Your task to perform on an android device: check google app version Image 0: 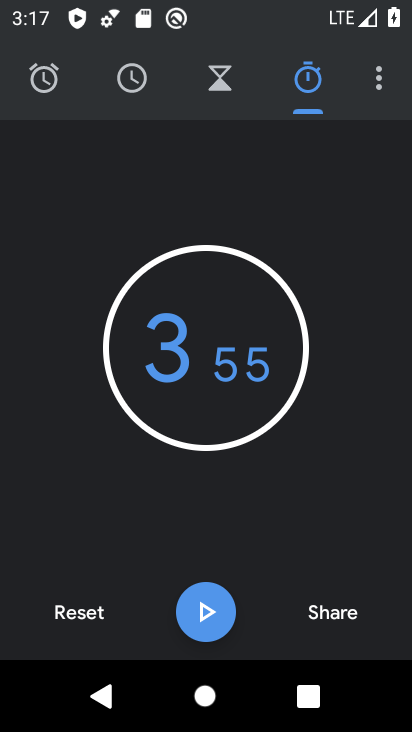
Step 0: press back button
Your task to perform on an android device: check google app version Image 1: 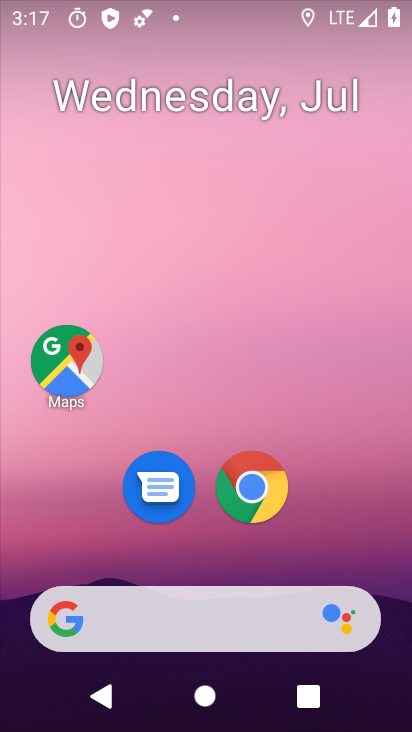
Step 1: drag from (191, 545) to (228, 4)
Your task to perform on an android device: check google app version Image 2: 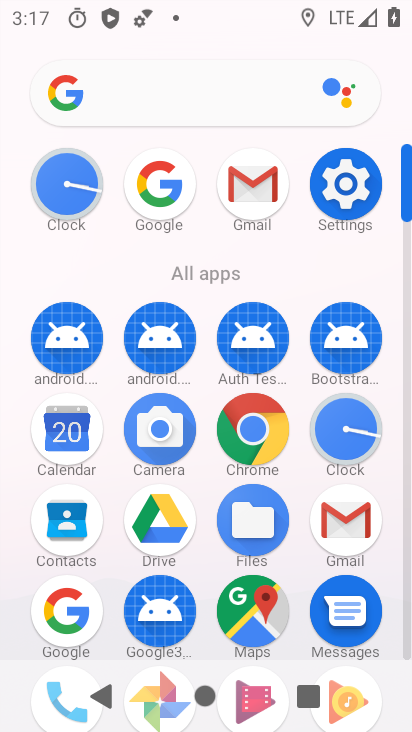
Step 2: click (78, 618)
Your task to perform on an android device: check google app version Image 3: 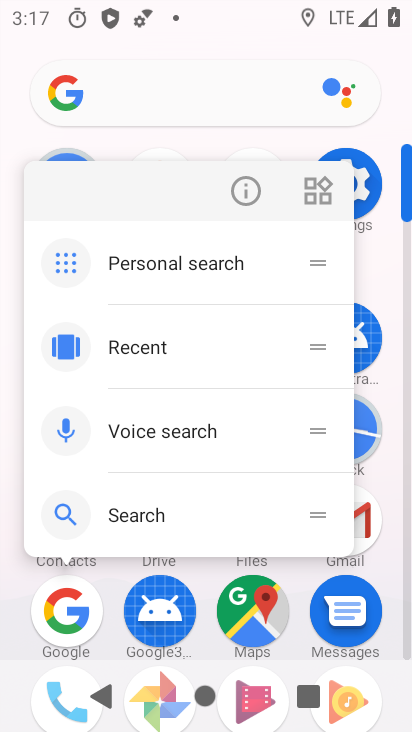
Step 3: click (255, 191)
Your task to perform on an android device: check google app version Image 4: 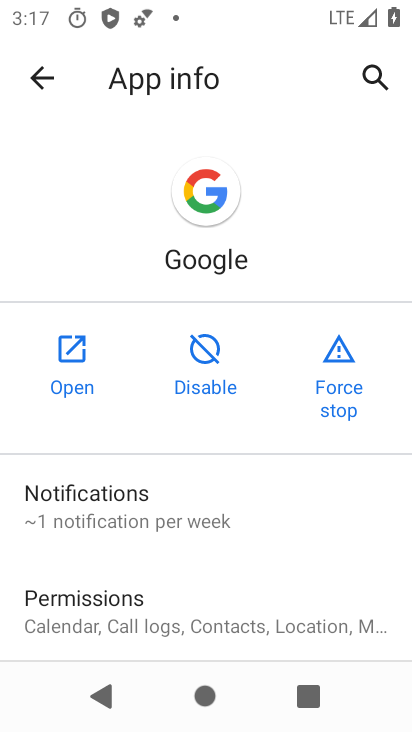
Step 4: drag from (176, 635) to (259, 2)
Your task to perform on an android device: check google app version Image 5: 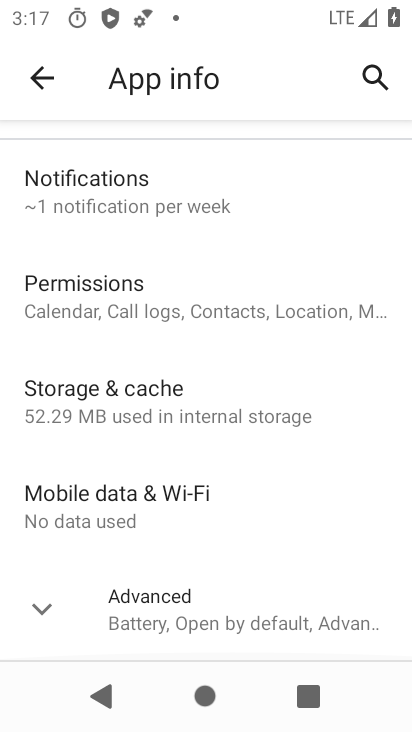
Step 5: click (156, 609)
Your task to perform on an android device: check google app version Image 6: 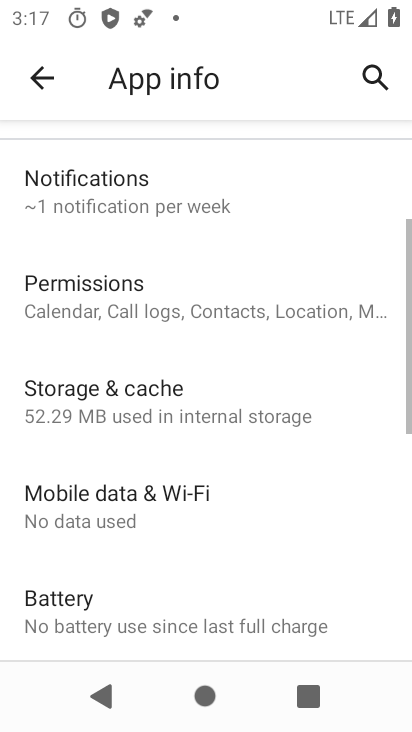
Step 6: task complete